Your task to perform on an android device: open a bookmark in the chrome app Image 0: 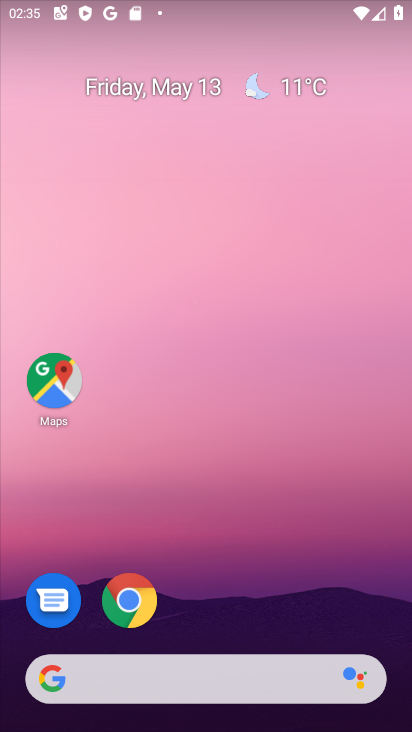
Step 0: drag from (207, 599) to (291, 105)
Your task to perform on an android device: open a bookmark in the chrome app Image 1: 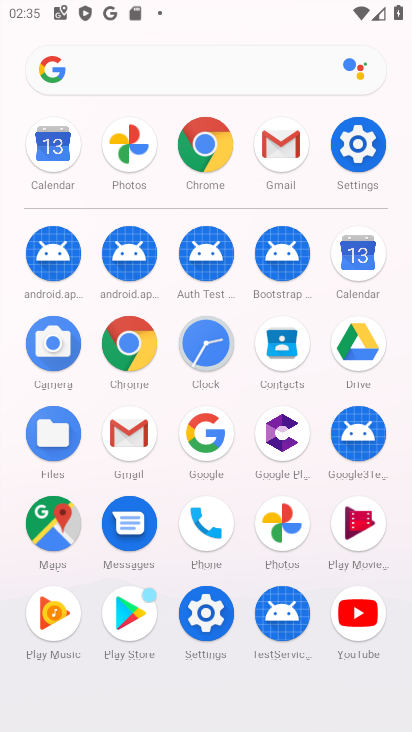
Step 1: click (199, 148)
Your task to perform on an android device: open a bookmark in the chrome app Image 2: 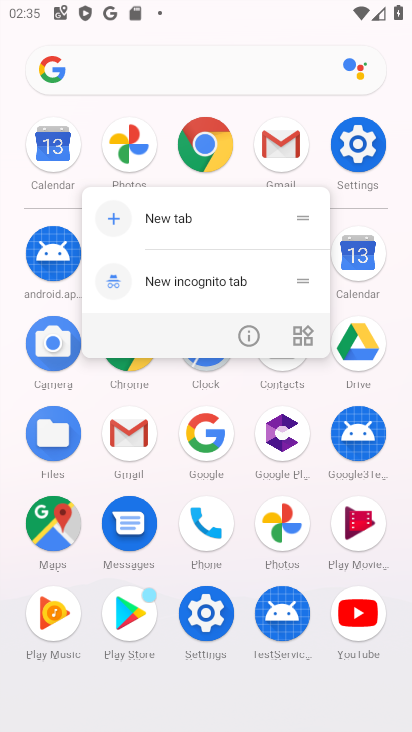
Step 2: click (249, 328)
Your task to perform on an android device: open a bookmark in the chrome app Image 3: 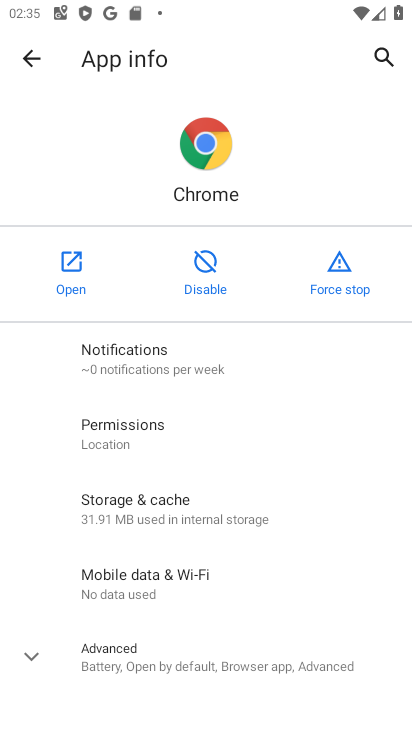
Step 3: click (64, 260)
Your task to perform on an android device: open a bookmark in the chrome app Image 4: 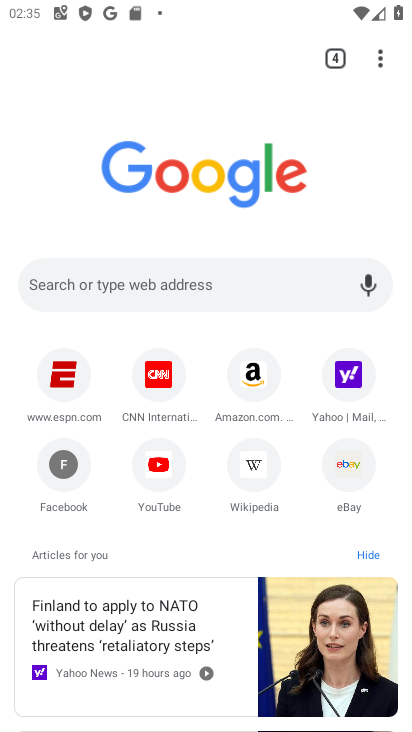
Step 4: click (379, 58)
Your task to perform on an android device: open a bookmark in the chrome app Image 5: 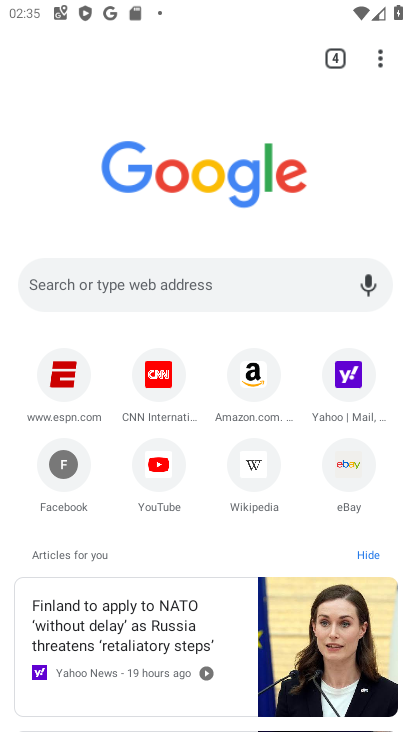
Step 5: task complete